Your task to perform on an android device: turn pop-ups on in chrome Image 0: 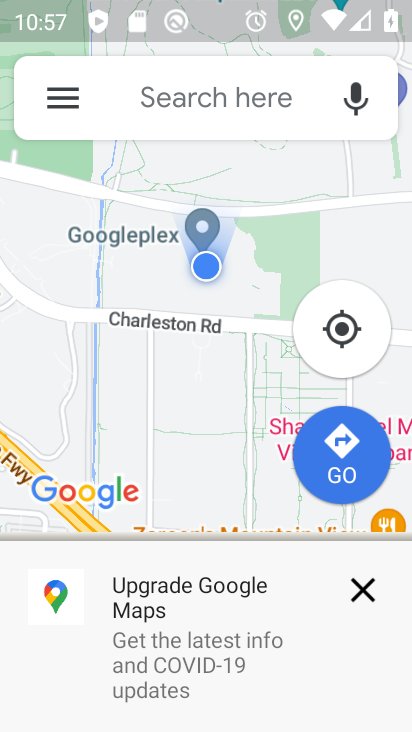
Step 0: press back button
Your task to perform on an android device: turn pop-ups on in chrome Image 1: 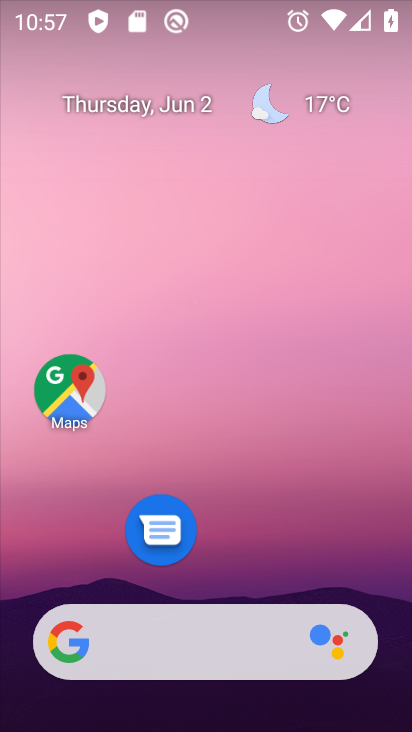
Step 1: drag from (261, 704) to (178, 93)
Your task to perform on an android device: turn pop-ups on in chrome Image 2: 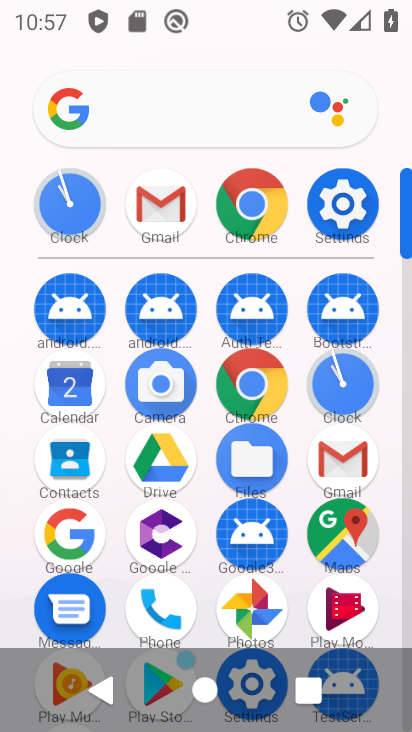
Step 2: click (236, 181)
Your task to perform on an android device: turn pop-ups on in chrome Image 3: 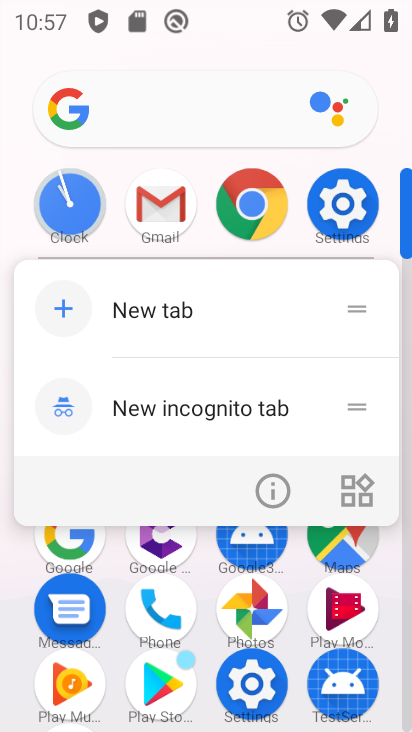
Step 3: click (172, 327)
Your task to perform on an android device: turn pop-ups on in chrome Image 4: 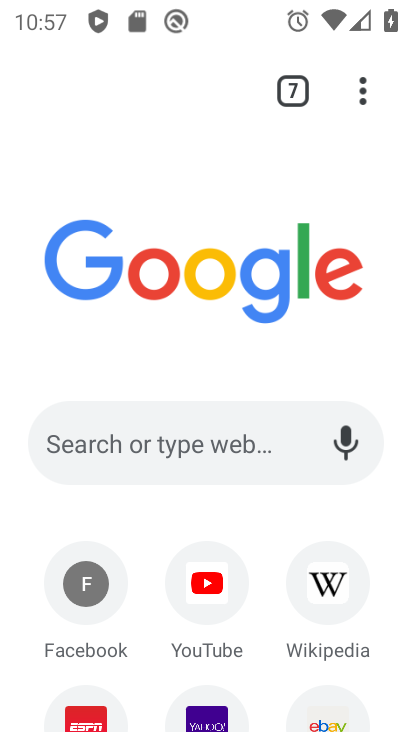
Step 4: drag from (363, 99) to (78, 554)
Your task to perform on an android device: turn pop-ups on in chrome Image 5: 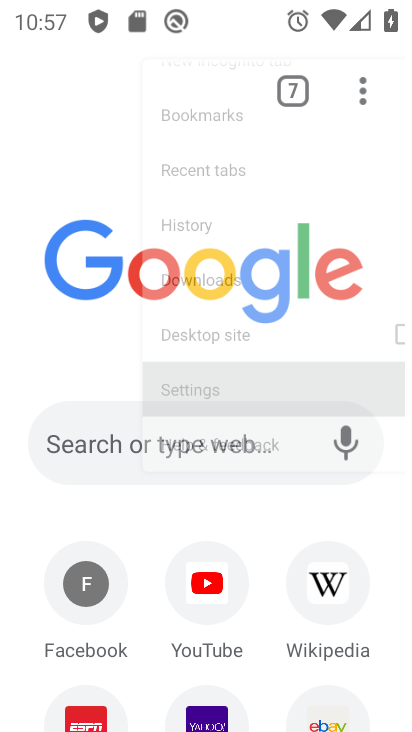
Step 5: click (79, 553)
Your task to perform on an android device: turn pop-ups on in chrome Image 6: 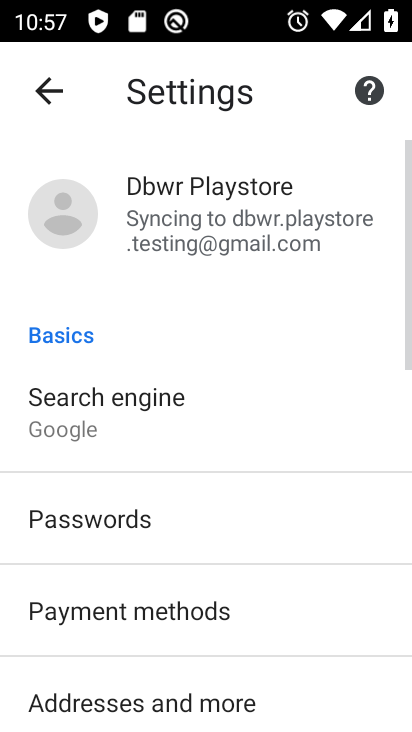
Step 6: drag from (195, 472) to (195, 201)
Your task to perform on an android device: turn pop-ups on in chrome Image 7: 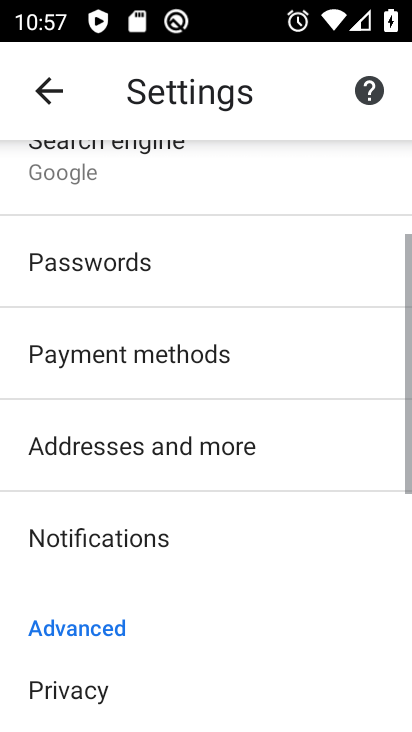
Step 7: drag from (211, 451) to (201, 211)
Your task to perform on an android device: turn pop-ups on in chrome Image 8: 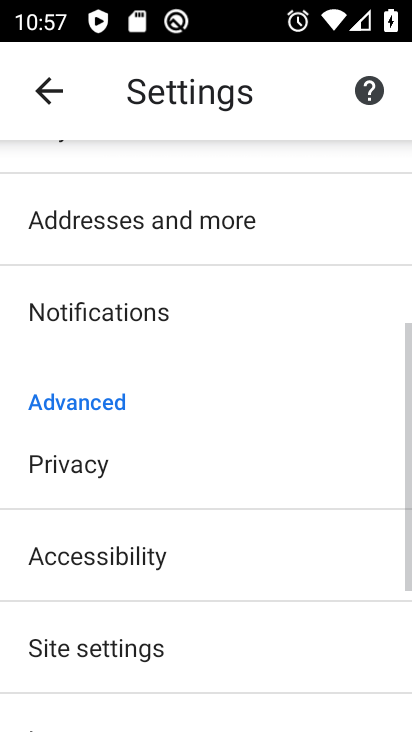
Step 8: drag from (195, 403) to (195, 219)
Your task to perform on an android device: turn pop-ups on in chrome Image 9: 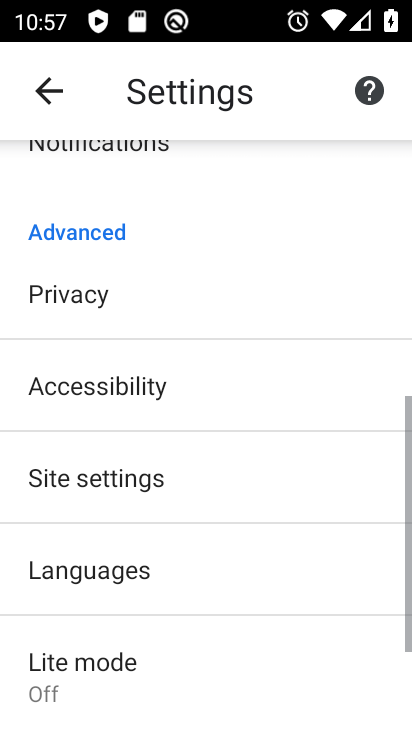
Step 9: drag from (195, 458) to (156, 209)
Your task to perform on an android device: turn pop-ups on in chrome Image 10: 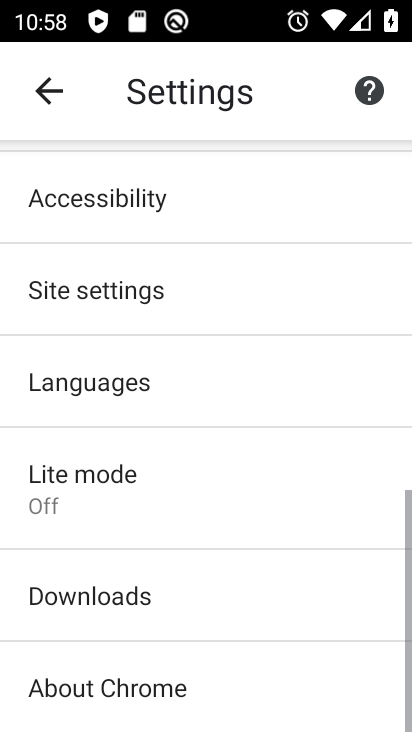
Step 10: drag from (171, 462) to (171, 245)
Your task to perform on an android device: turn pop-ups on in chrome Image 11: 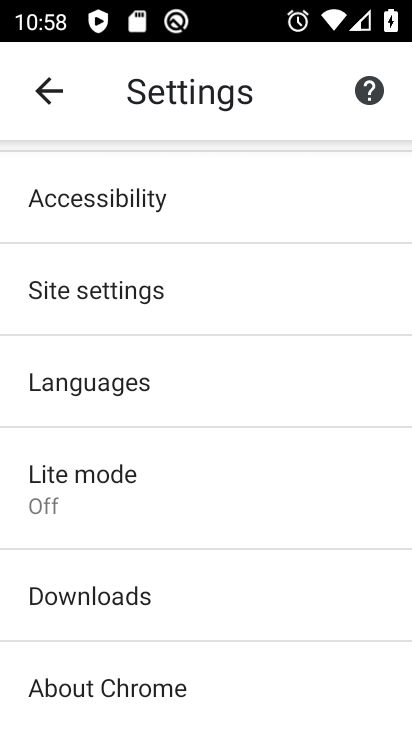
Step 11: click (78, 294)
Your task to perform on an android device: turn pop-ups on in chrome Image 12: 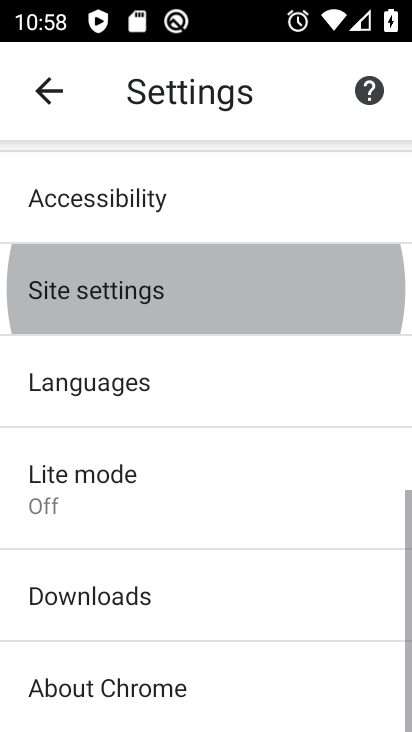
Step 12: click (84, 296)
Your task to perform on an android device: turn pop-ups on in chrome Image 13: 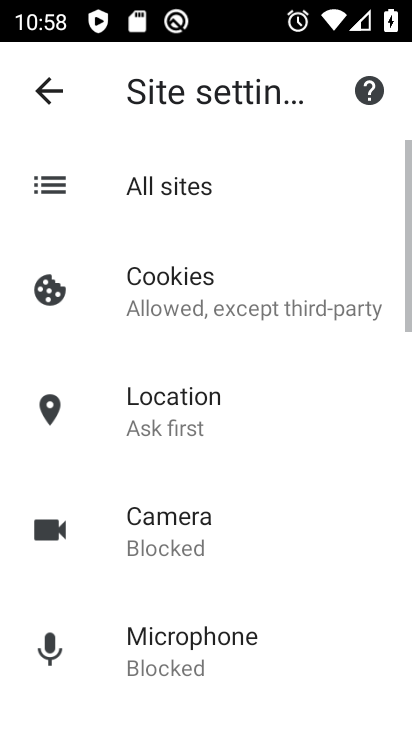
Step 13: drag from (206, 552) to (207, 307)
Your task to perform on an android device: turn pop-ups on in chrome Image 14: 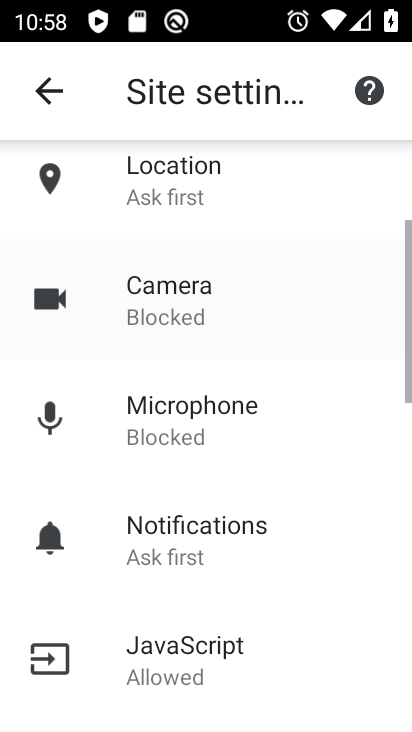
Step 14: drag from (226, 475) to (249, 224)
Your task to perform on an android device: turn pop-ups on in chrome Image 15: 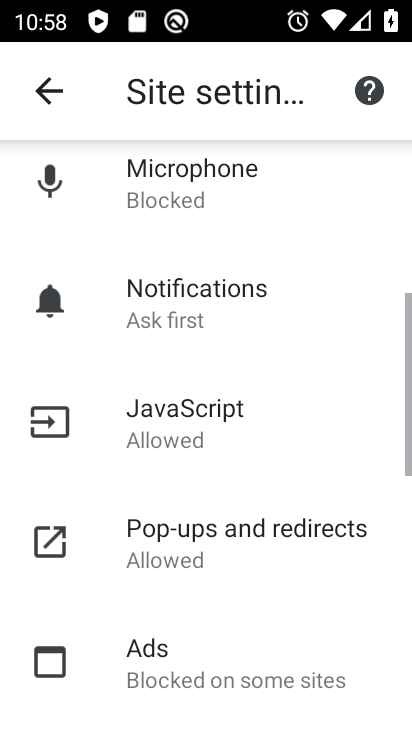
Step 15: drag from (291, 449) to (277, 254)
Your task to perform on an android device: turn pop-ups on in chrome Image 16: 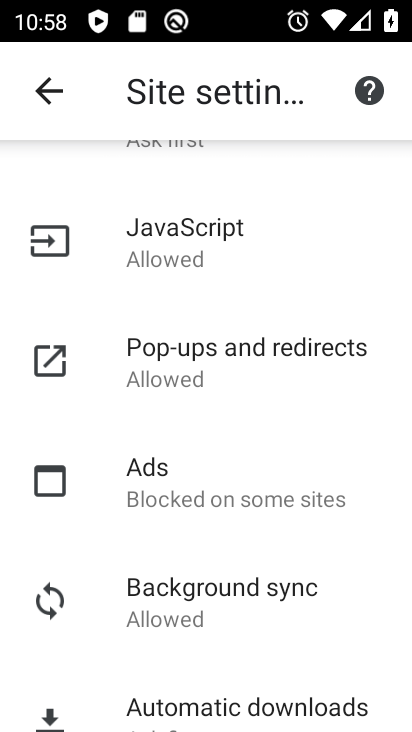
Step 16: click (174, 358)
Your task to perform on an android device: turn pop-ups on in chrome Image 17: 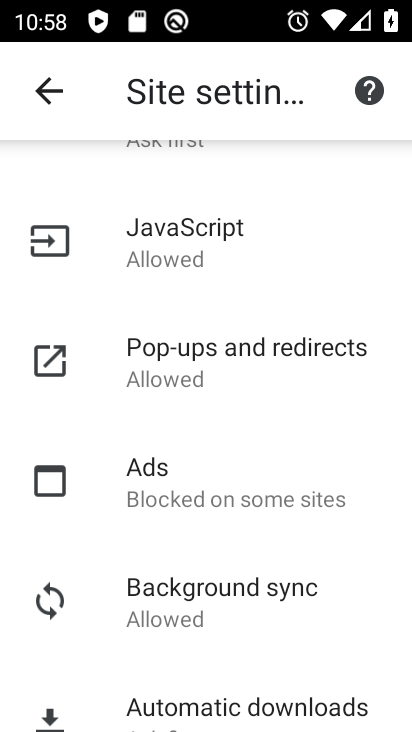
Step 17: click (175, 359)
Your task to perform on an android device: turn pop-ups on in chrome Image 18: 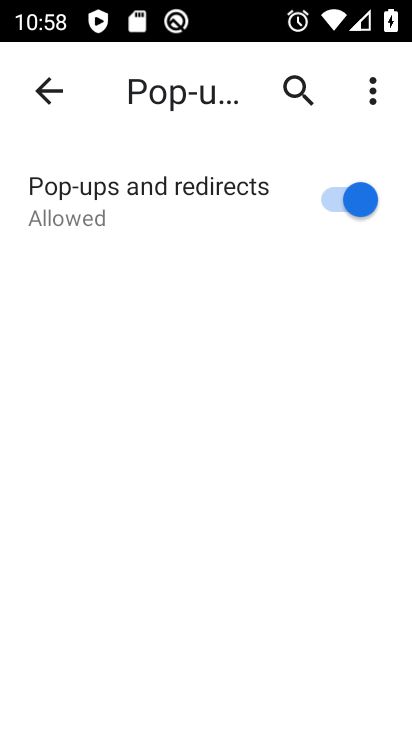
Step 18: task complete